Your task to perform on an android device: Do I have any events this weekend? Image 0: 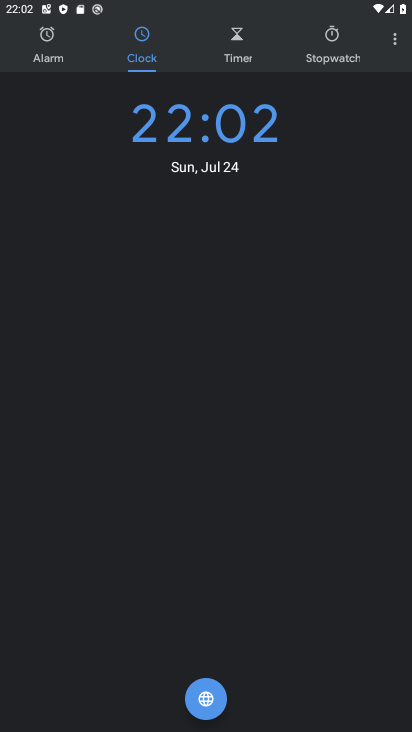
Step 0: press home button
Your task to perform on an android device: Do I have any events this weekend? Image 1: 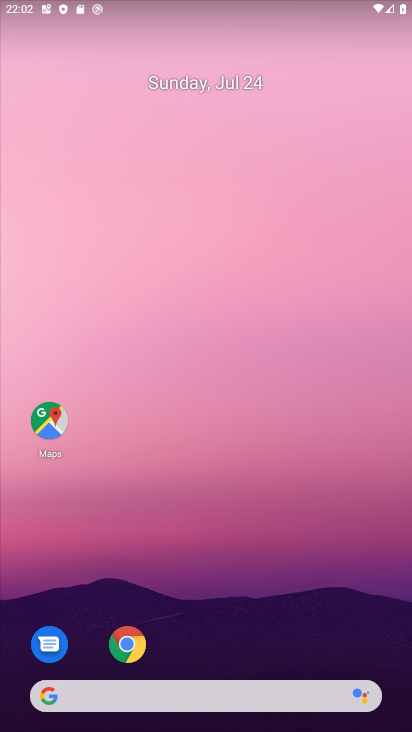
Step 1: drag from (379, 648) to (351, 113)
Your task to perform on an android device: Do I have any events this weekend? Image 2: 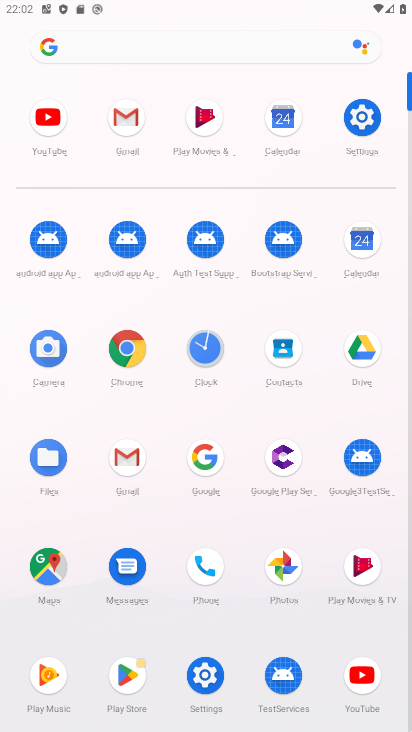
Step 2: click (360, 241)
Your task to perform on an android device: Do I have any events this weekend? Image 3: 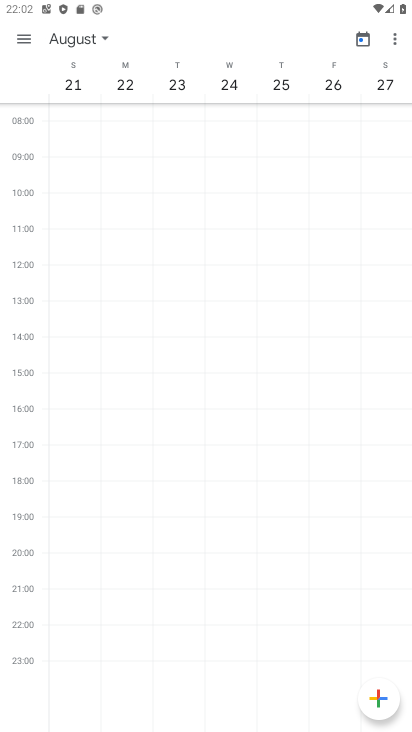
Step 3: click (94, 38)
Your task to perform on an android device: Do I have any events this weekend? Image 4: 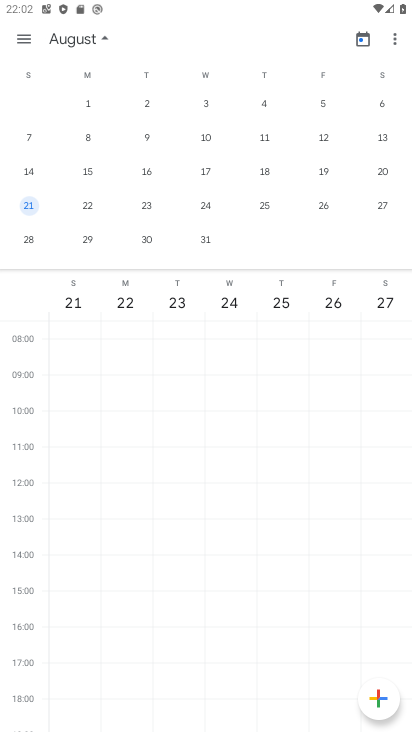
Step 4: drag from (25, 168) to (410, 153)
Your task to perform on an android device: Do I have any events this weekend? Image 5: 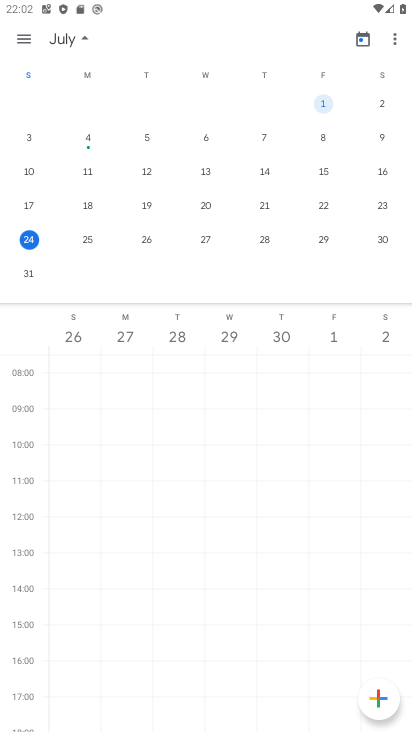
Step 5: click (29, 236)
Your task to perform on an android device: Do I have any events this weekend? Image 6: 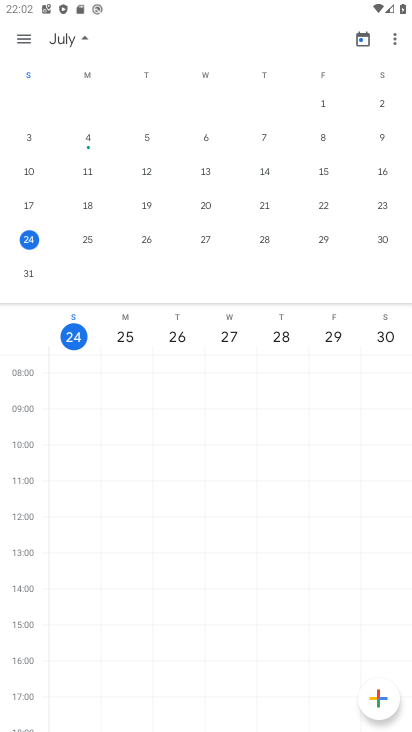
Step 6: task complete